Your task to perform on an android device: Clear the shopping cart on bestbuy. Image 0: 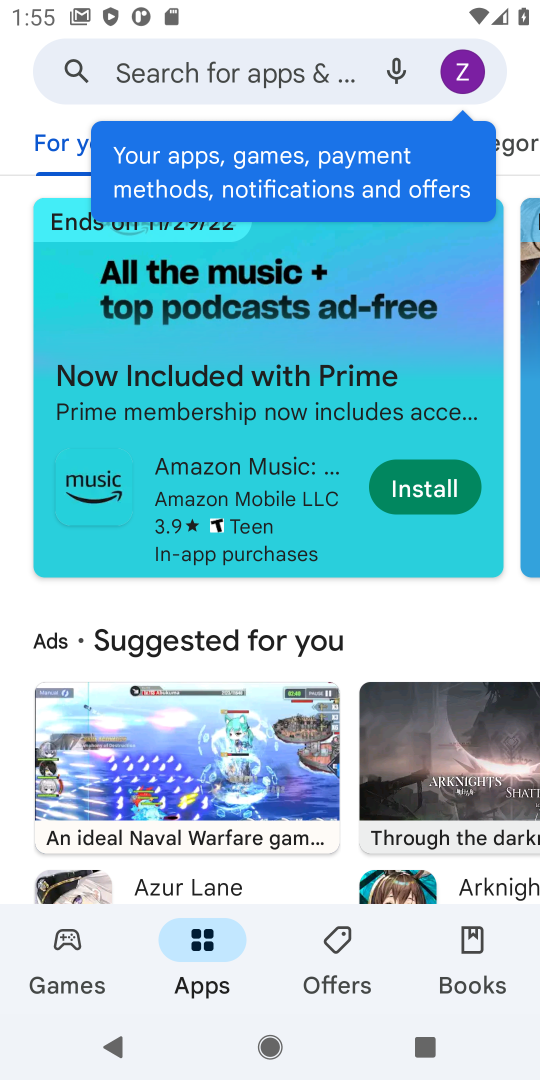
Step 0: press home button
Your task to perform on an android device: Clear the shopping cart on bestbuy. Image 1: 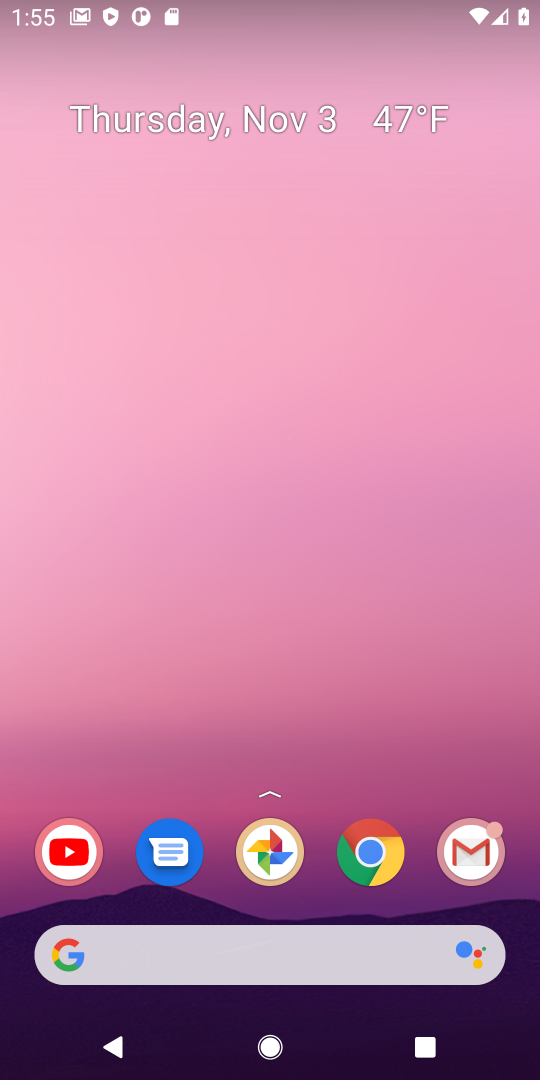
Step 1: click (373, 857)
Your task to perform on an android device: Clear the shopping cart on bestbuy. Image 2: 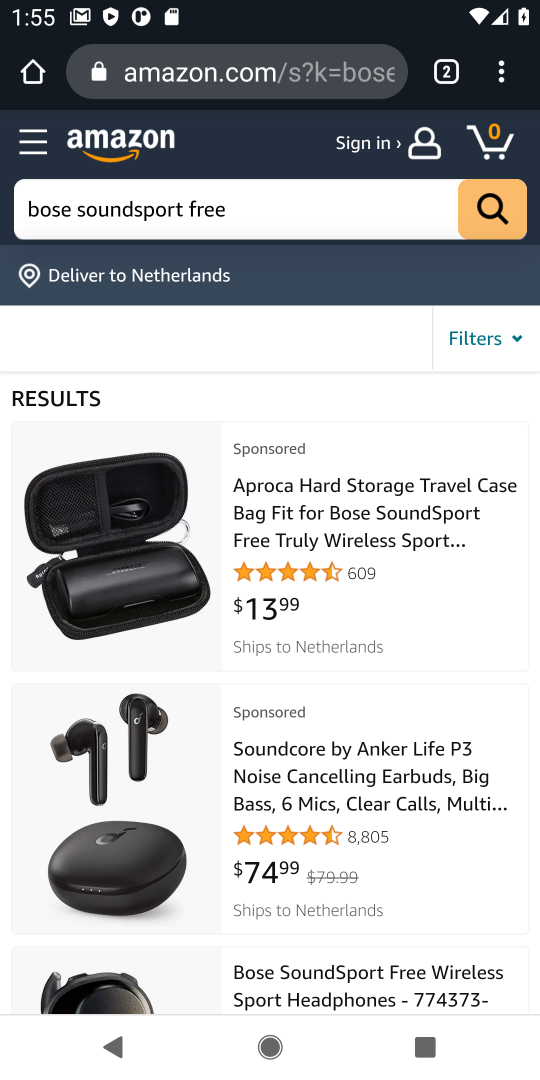
Step 2: click (334, 76)
Your task to perform on an android device: Clear the shopping cart on bestbuy. Image 3: 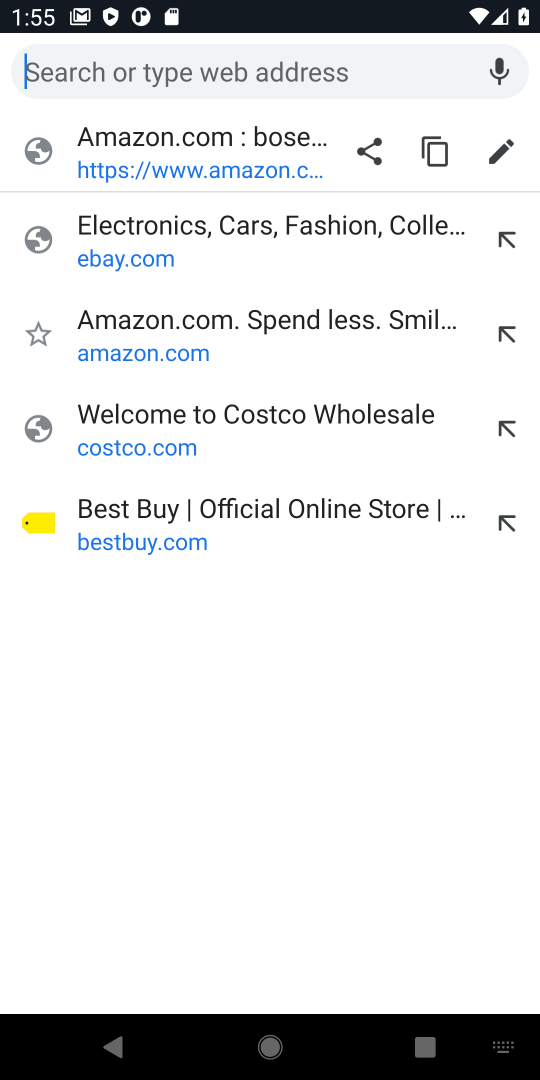
Step 3: click (139, 531)
Your task to perform on an android device: Clear the shopping cart on bestbuy. Image 4: 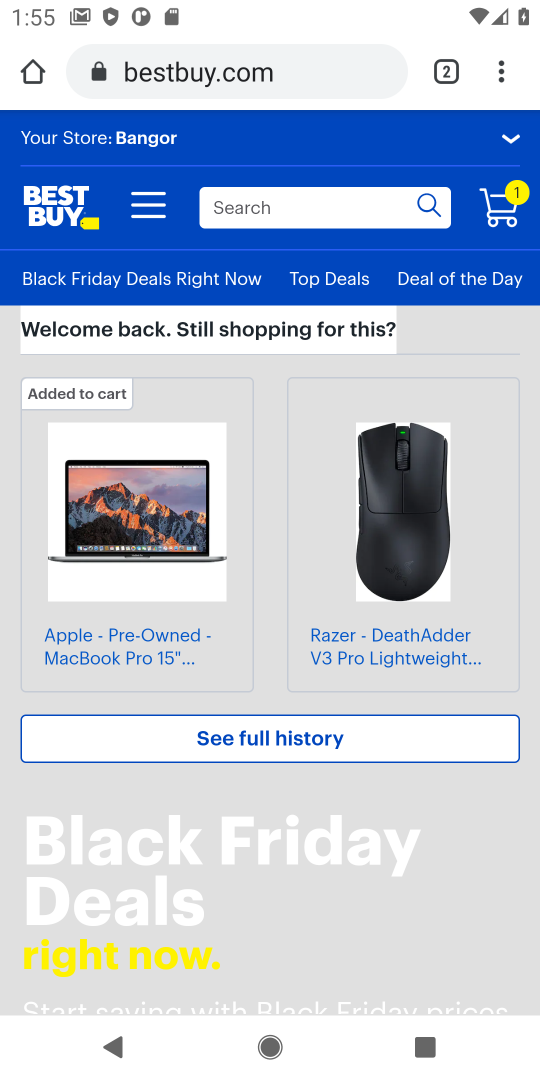
Step 4: click (513, 209)
Your task to perform on an android device: Clear the shopping cart on bestbuy. Image 5: 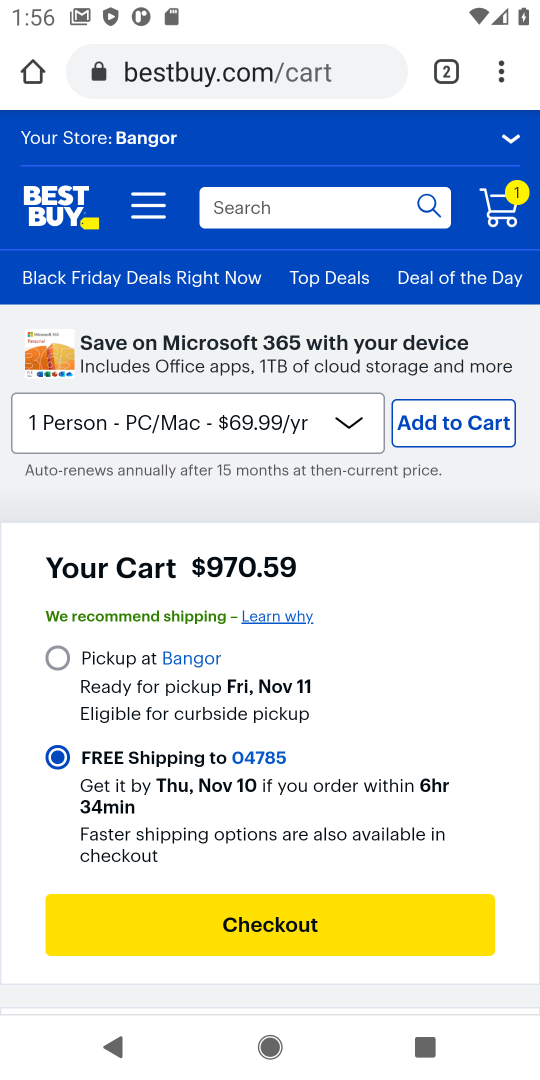
Step 5: drag from (356, 771) to (338, 418)
Your task to perform on an android device: Clear the shopping cart on bestbuy. Image 6: 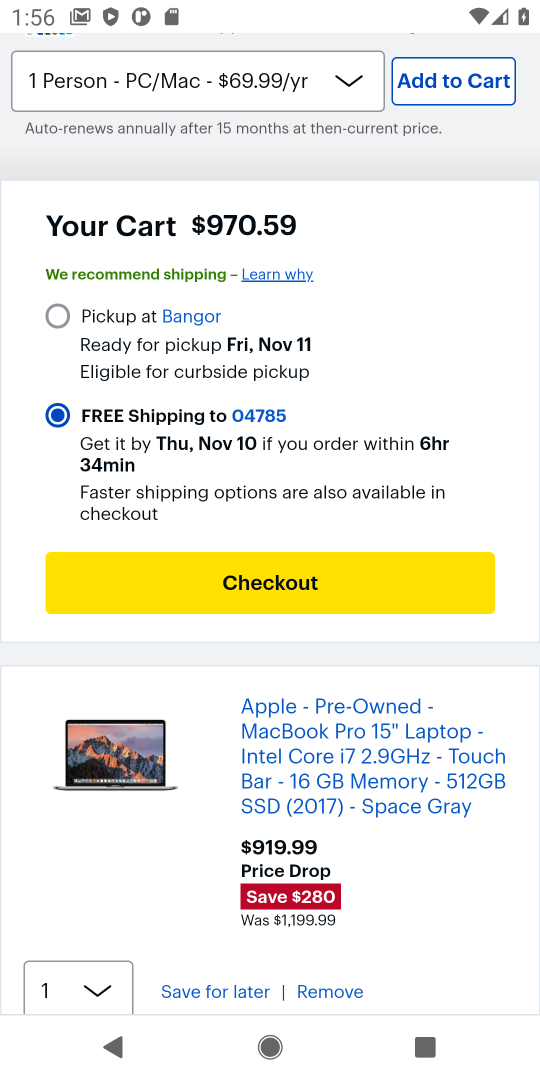
Step 6: drag from (362, 765) to (362, 530)
Your task to perform on an android device: Clear the shopping cart on bestbuy. Image 7: 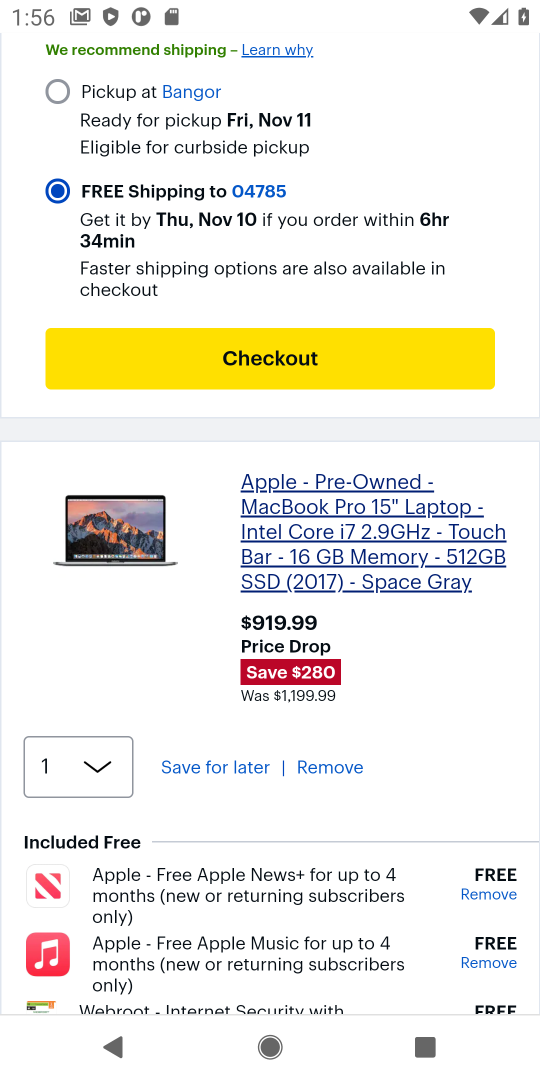
Step 7: click (307, 769)
Your task to perform on an android device: Clear the shopping cart on bestbuy. Image 8: 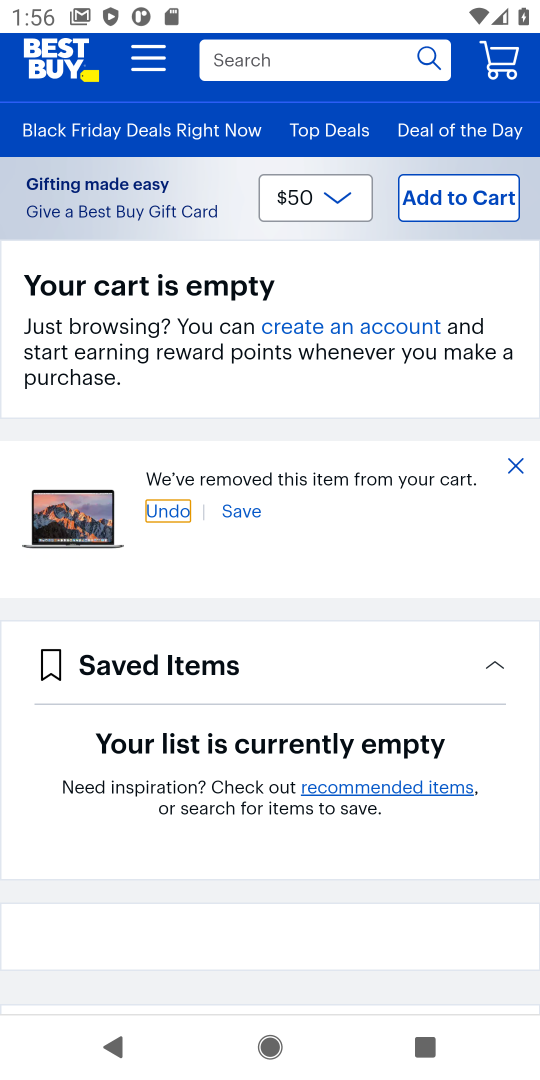
Step 8: task complete